Your task to perform on an android device: Open display settings Image 0: 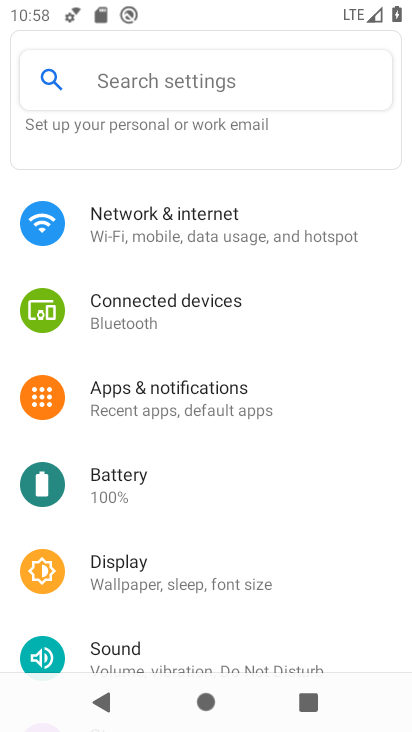
Step 0: click (112, 572)
Your task to perform on an android device: Open display settings Image 1: 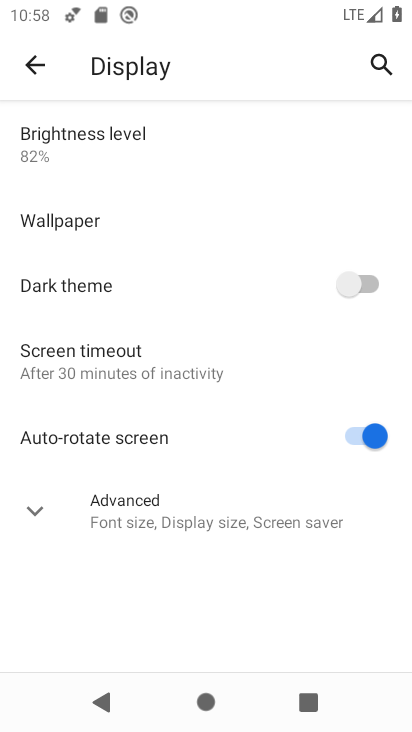
Step 1: task complete